Your task to perform on an android device: Show me recent news Image 0: 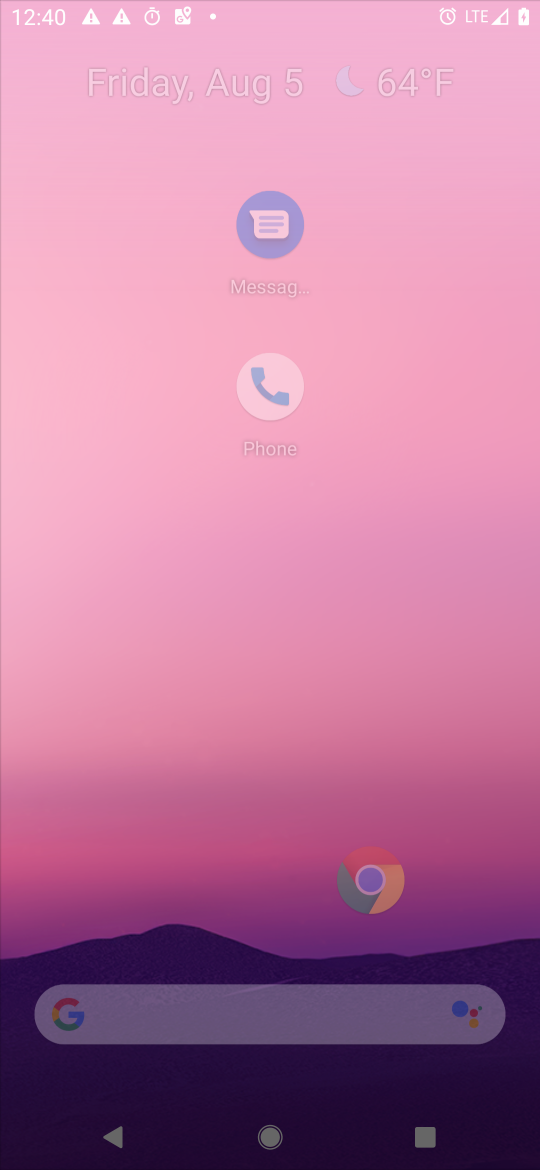
Step 0: click (355, 103)
Your task to perform on an android device: Show me recent news Image 1: 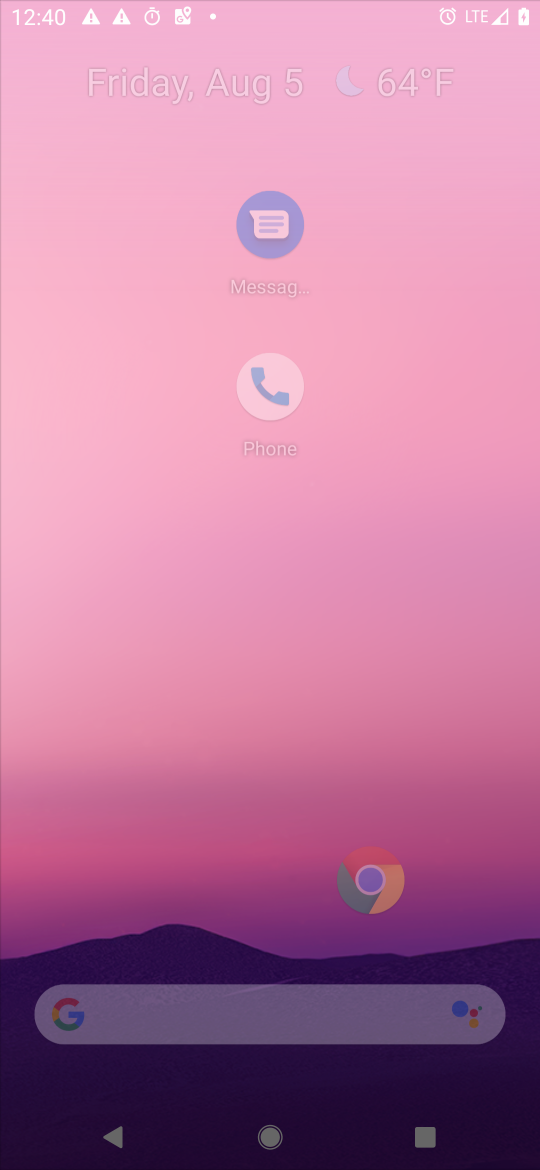
Step 1: press home button
Your task to perform on an android device: Show me recent news Image 2: 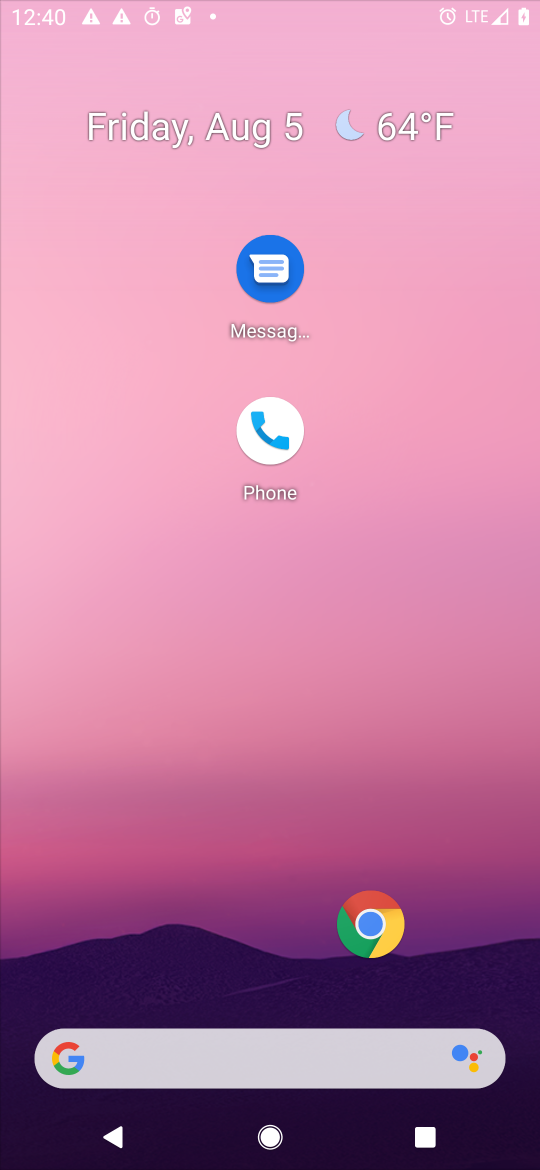
Step 2: drag from (192, 935) to (360, 233)
Your task to perform on an android device: Show me recent news Image 3: 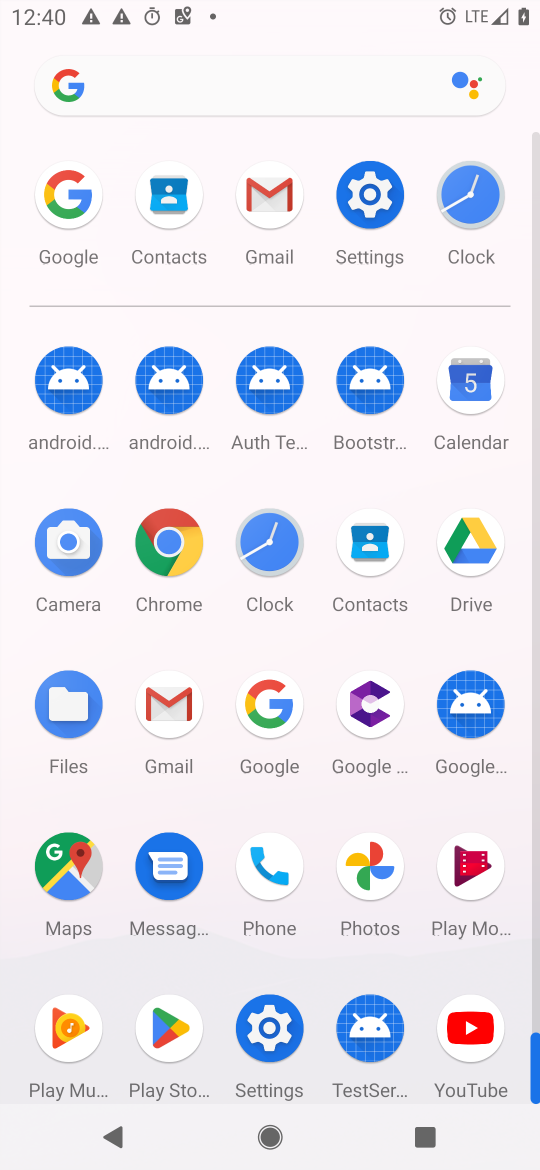
Step 3: click (154, 536)
Your task to perform on an android device: Show me recent news Image 4: 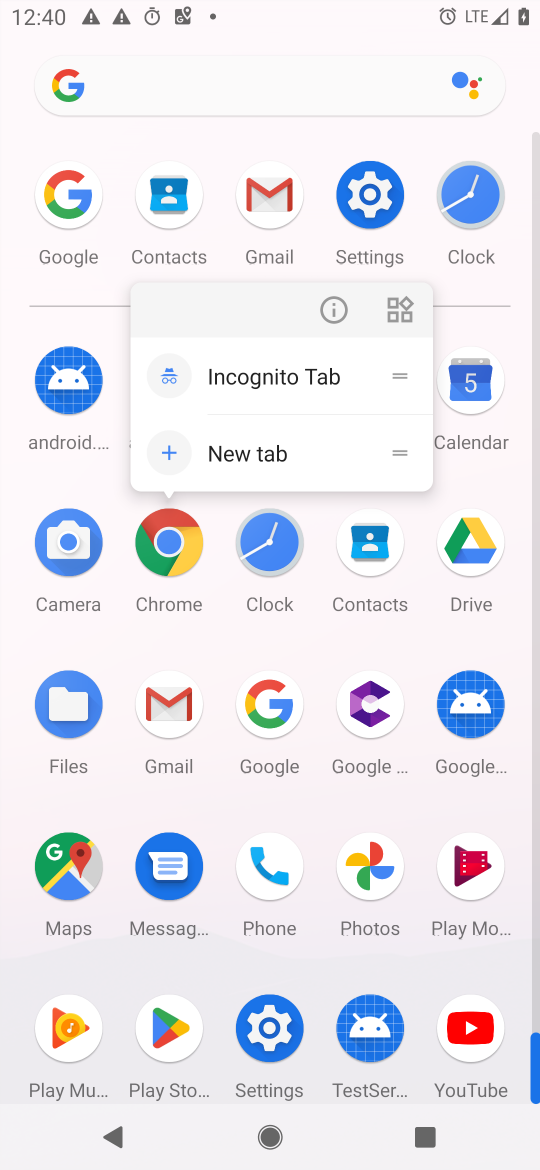
Step 4: click (323, 309)
Your task to perform on an android device: Show me recent news Image 5: 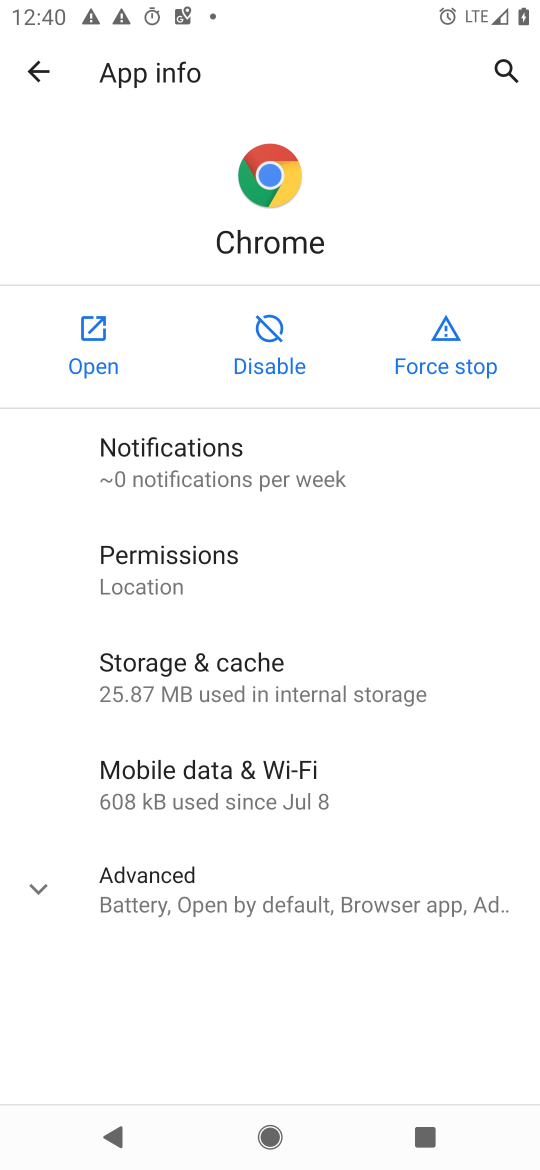
Step 5: click (98, 341)
Your task to perform on an android device: Show me recent news Image 6: 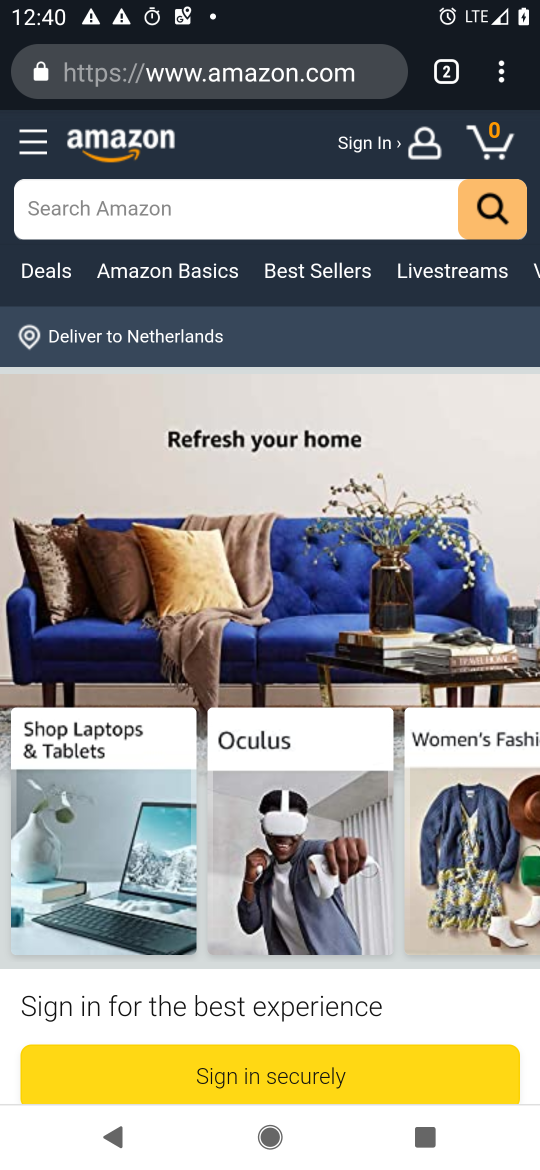
Step 6: click (219, 65)
Your task to perform on an android device: Show me recent news Image 7: 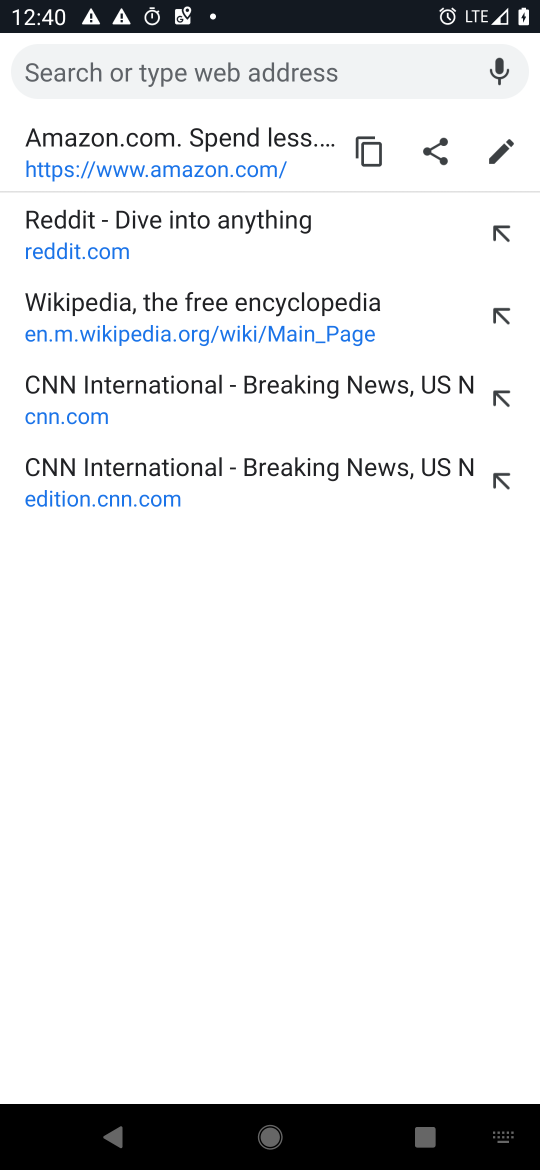
Step 7: type " recent news"
Your task to perform on an android device: Show me recent news Image 8: 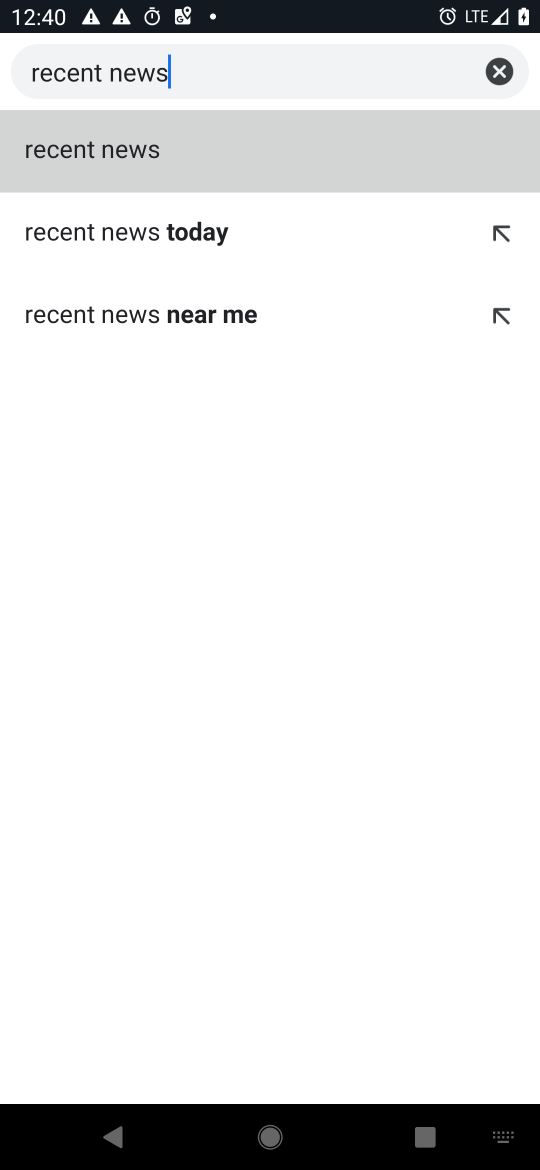
Step 8: type ""
Your task to perform on an android device: Show me recent news Image 9: 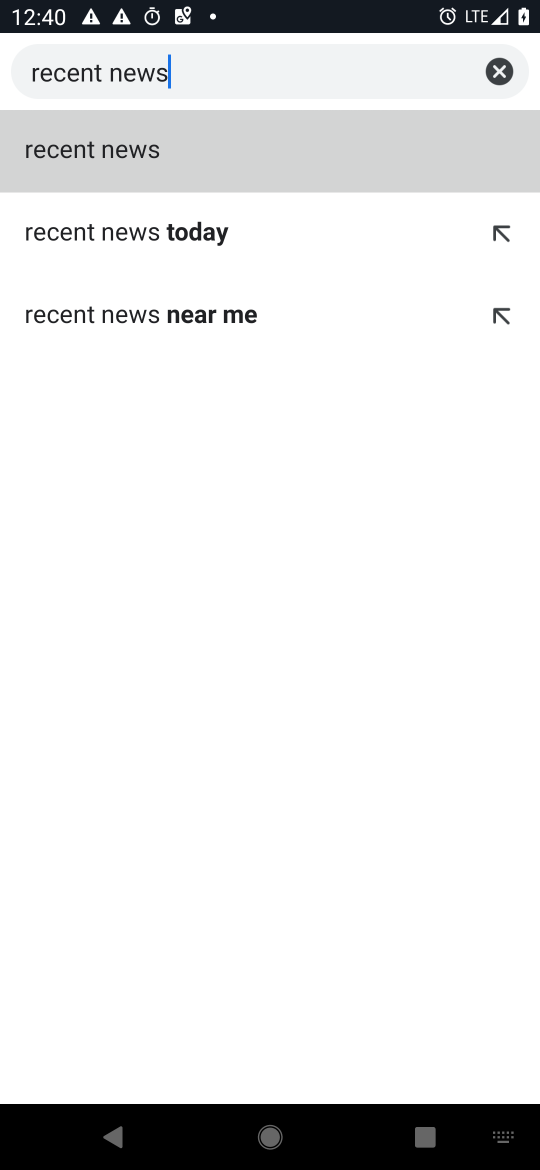
Step 9: click (180, 173)
Your task to perform on an android device: Show me recent news Image 10: 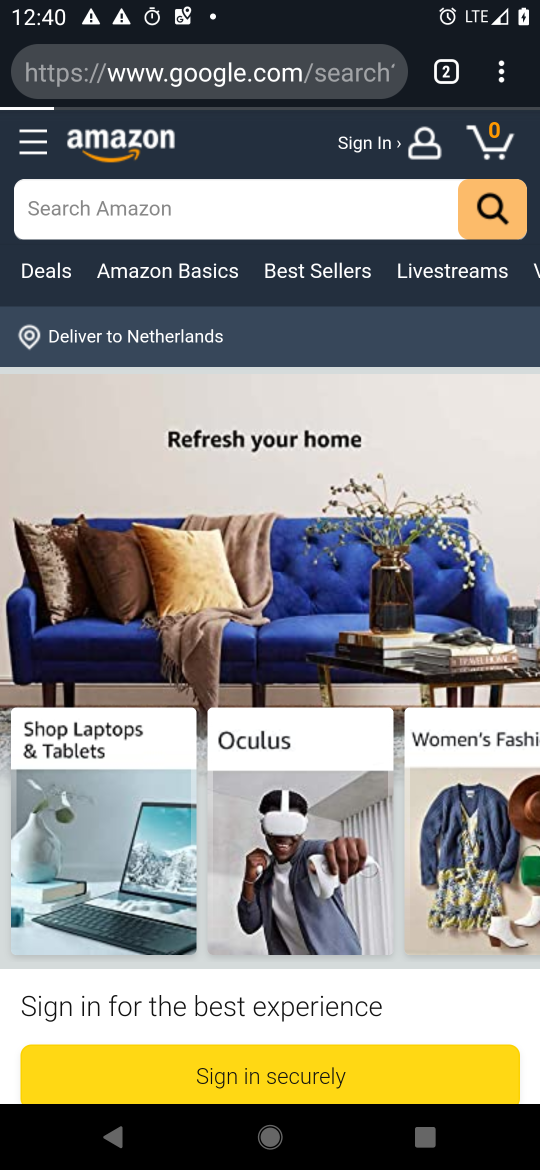
Step 10: task complete